Your task to perform on an android device: What's on my calendar today? Image 0: 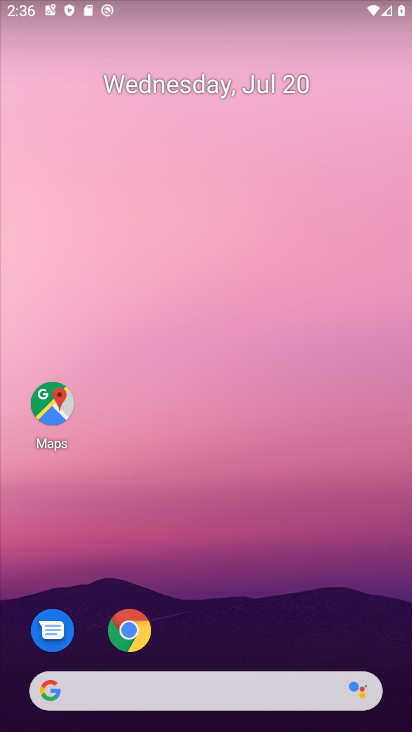
Step 0: drag from (289, 611) to (290, 181)
Your task to perform on an android device: What's on my calendar today? Image 1: 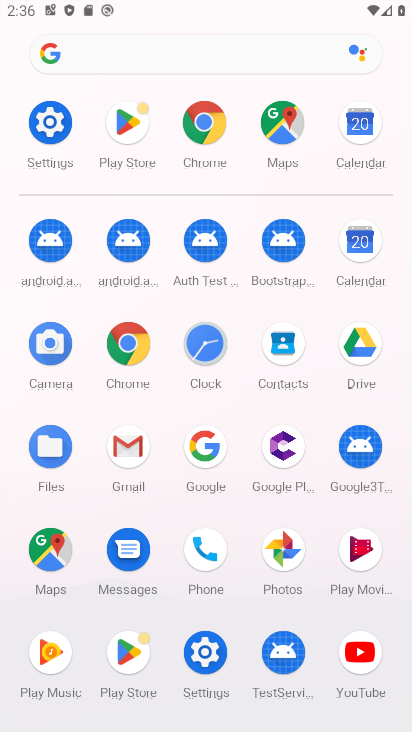
Step 1: click (362, 254)
Your task to perform on an android device: What's on my calendar today? Image 2: 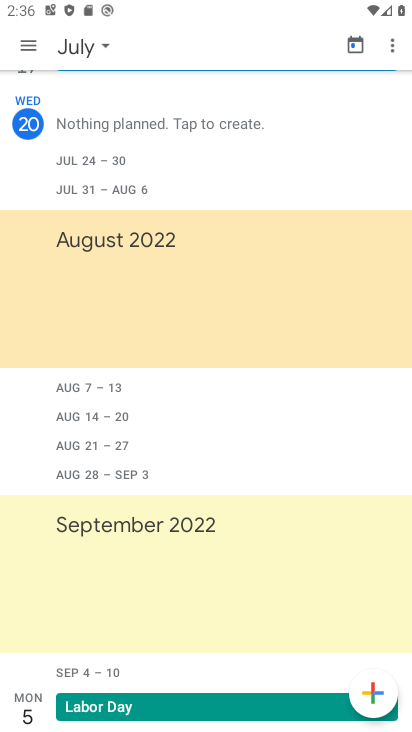
Step 2: task complete